Your task to perform on an android device: Go to network settings Image 0: 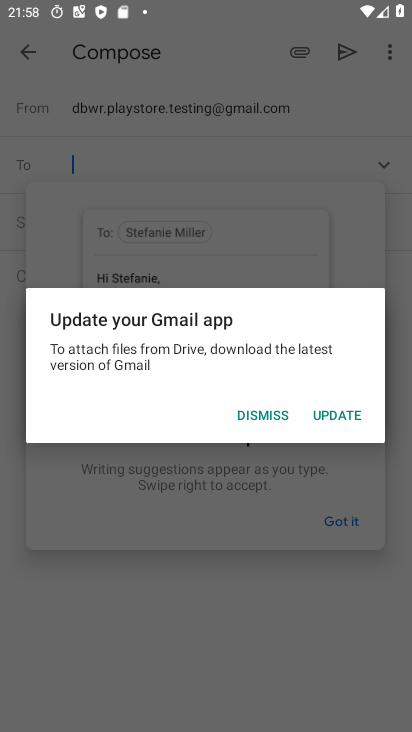
Step 0: press home button
Your task to perform on an android device: Go to network settings Image 1: 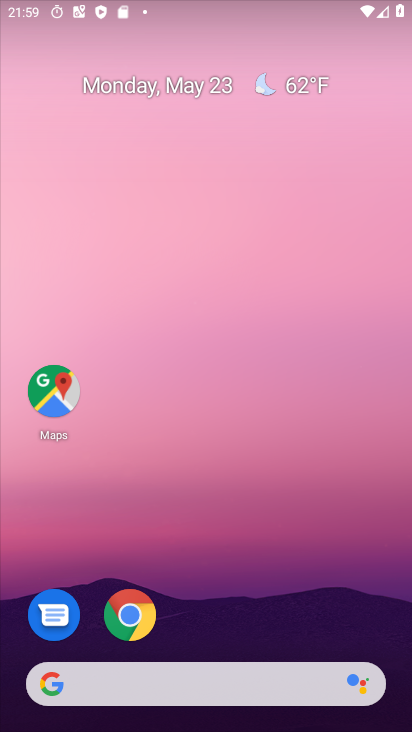
Step 1: drag from (235, 594) to (240, 68)
Your task to perform on an android device: Go to network settings Image 2: 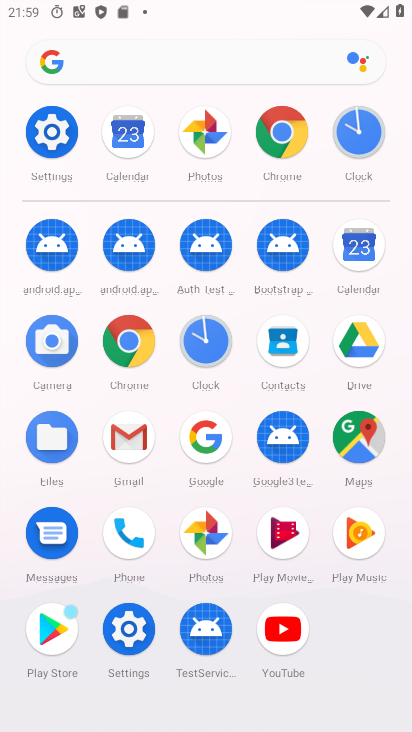
Step 2: click (44, 131)
Your task to perform on an android device: Go to network settings Image 3: 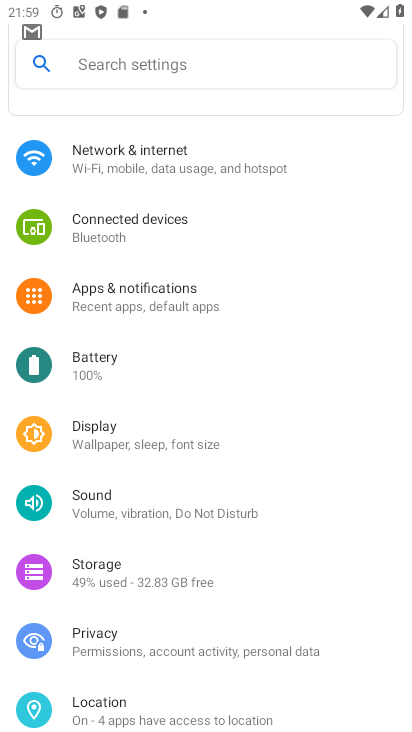
Step 3: click (177, 164)
Your task to perform on an android device: Go to network settings Image 4: 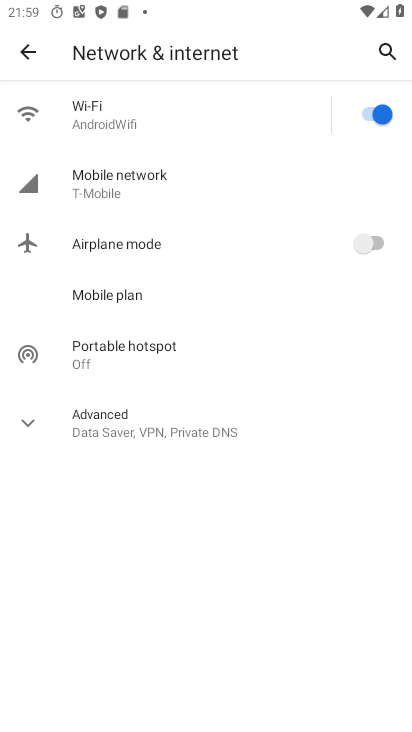
Step 4: click (161, 181)
Your task to perform on an android device: Go to network settings Image 5: 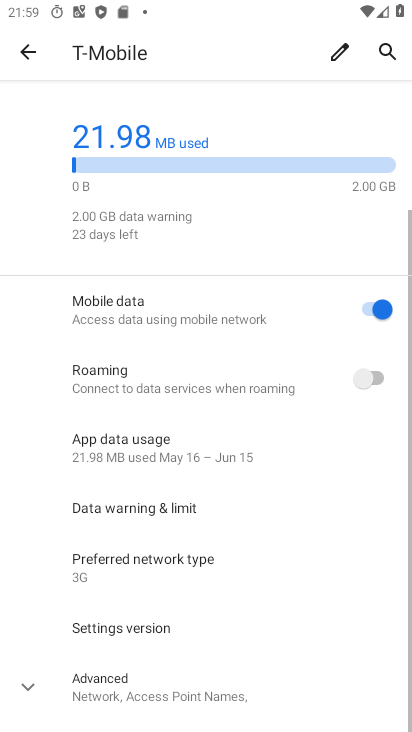
Step 5: task complete